Your task to perform on an android device: Open calendar and show me the second week of next month Image 0: 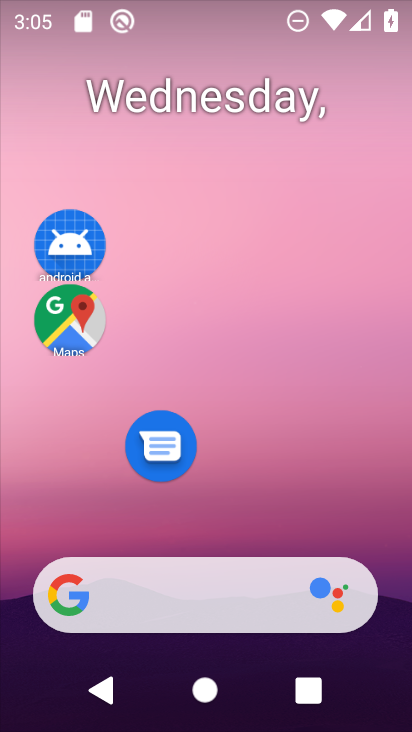
Step 0: drag from (300, 437) to (305, 90)
Your task to perform on an android device: Open calendar and show me the second week of next month Image 1: 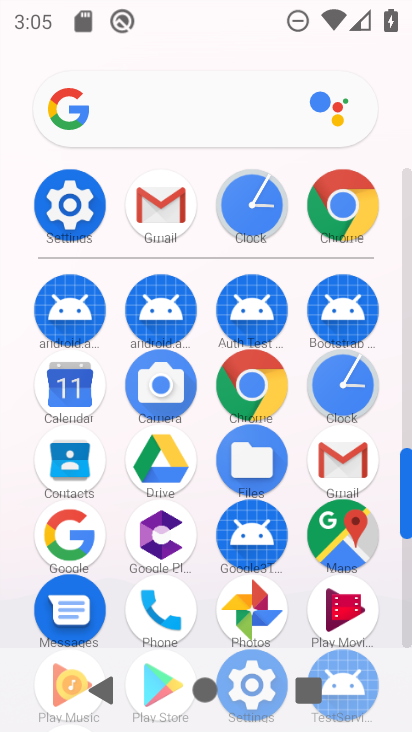
Step 1: click (87, 380)
Your task to perform on an android device: Open calendar and show me the second week of next month Image 2: 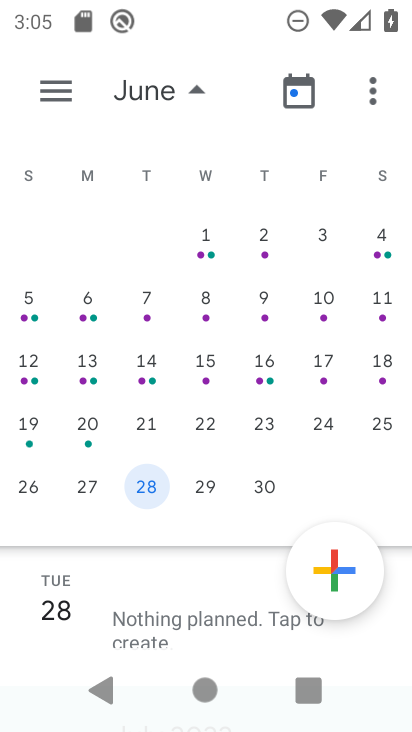
Step 2: click (216, 379)
Your task to perform on an android device: Open calendar and show me the second week of next month Image 3: 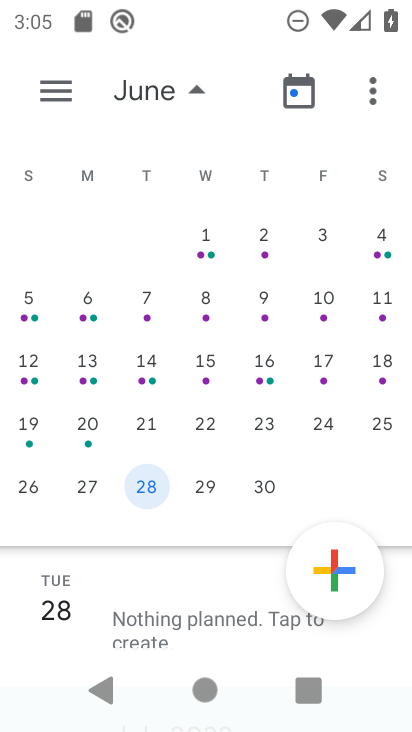
Step 3: click (214, 355)
Your task to perform on an android device: Open calendar and show me the second week of next month Image 4: 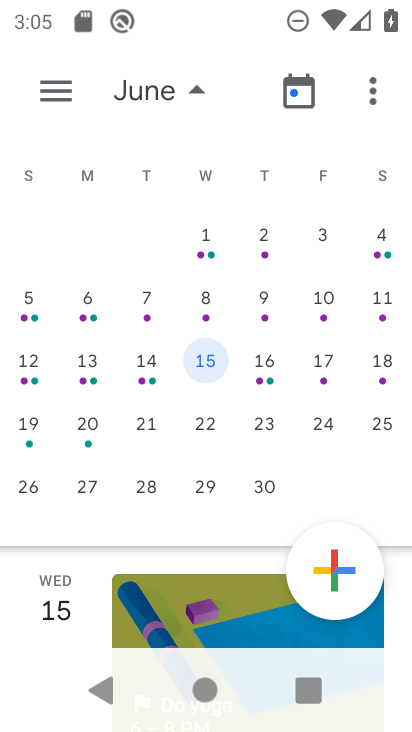
Step 4: task complete